Your task to perform on an android device: Open wifi settings Image 0: 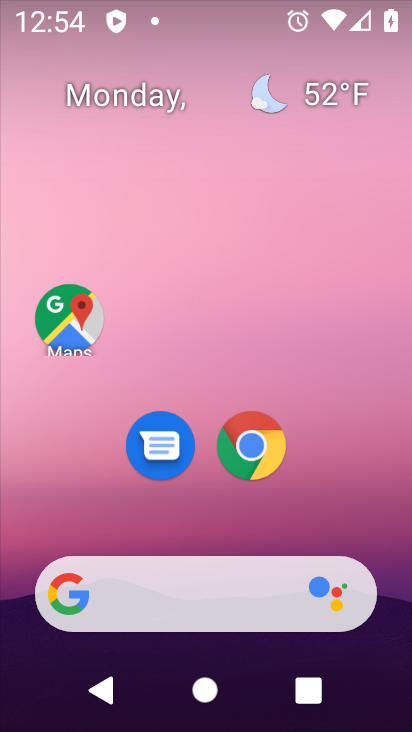
Step 0: drag from (382, 483) to (382, 64)
Your task to perform on an android device: Open wifi settings Image 1: 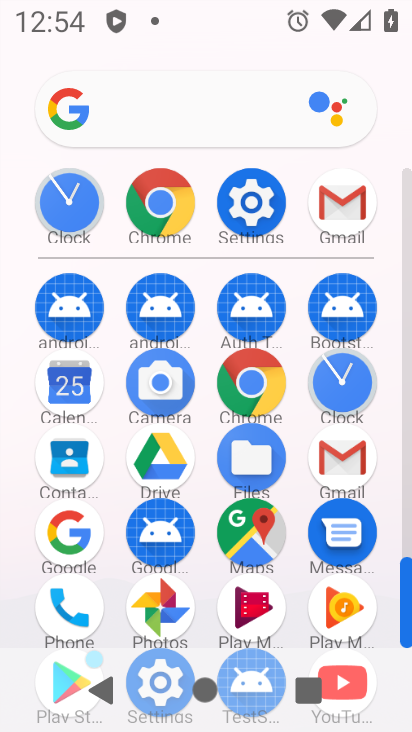
Step 1: click (249, 217)
Your task to perform on an android device: Open wifi settings Image 2: 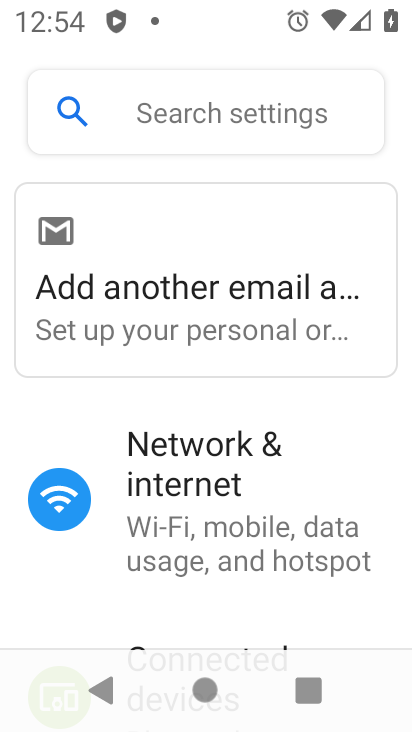
Step 2: click (185, 515)
Your task to perform on an android device: Open wifi settings Image 3: 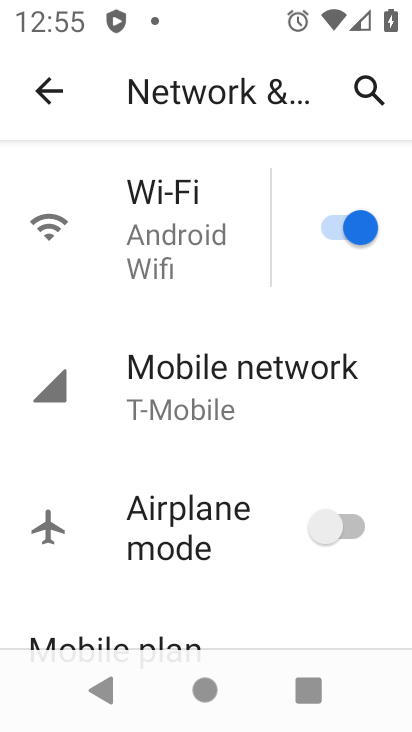
Step 3: task complete